Your task to perform on an android device: remove spam from my inbox in the gmail app Image 0: 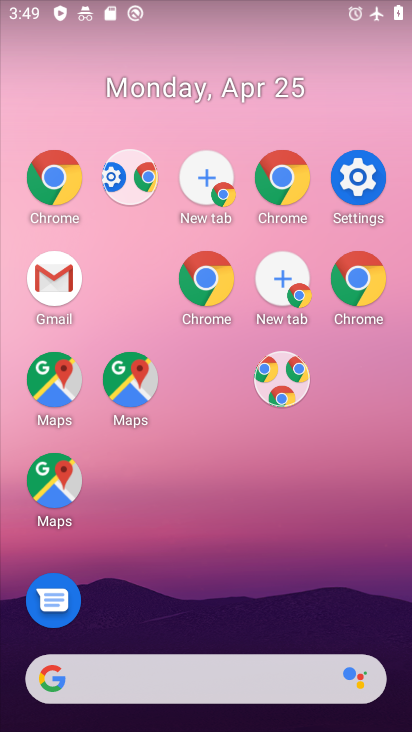
Step 0: drag from (293, 652) to (262, 60)
Your task to perform on an android device: remove spam from my inbox in the gmail app Image 1: 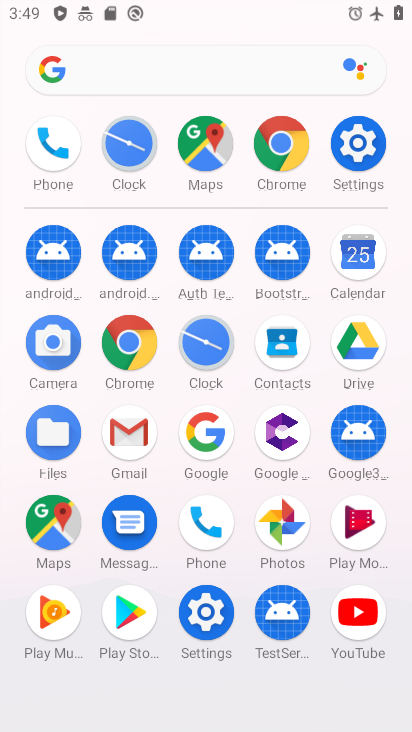
Step 1: click (130, 422)
Your task to perform on an android device: remove spam from my inbox in the gmail app Image 2: 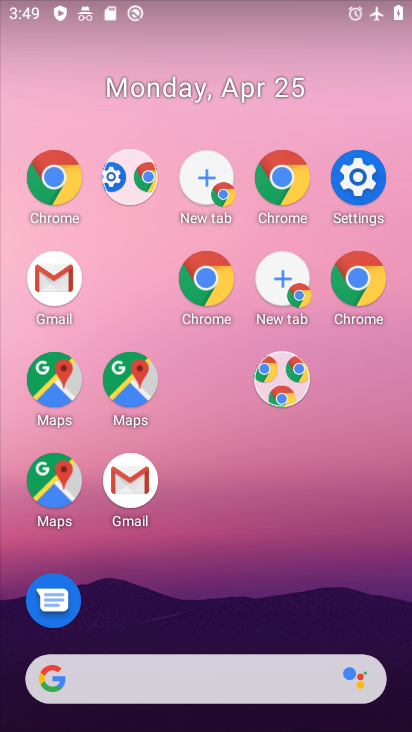
Step 2: click (125, 486)
Your task to perform on an android device: remove spam from my inbox in the gmail app Image 3: 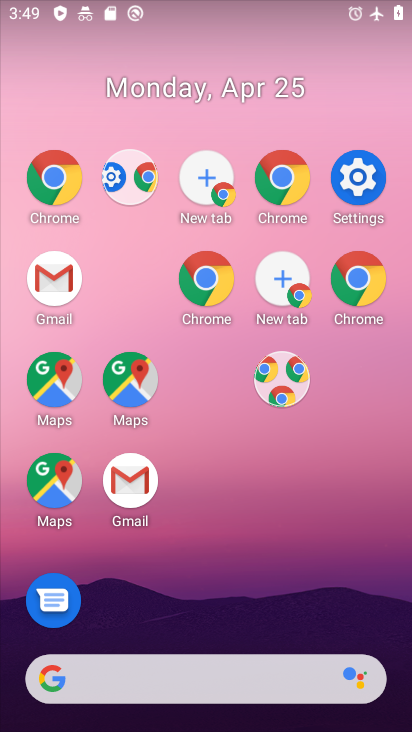
Step 3: drag from (261, 714) to (174, 180)
Your task to perform on an android device: remove spam from my inbox in the gmail app Image 4: 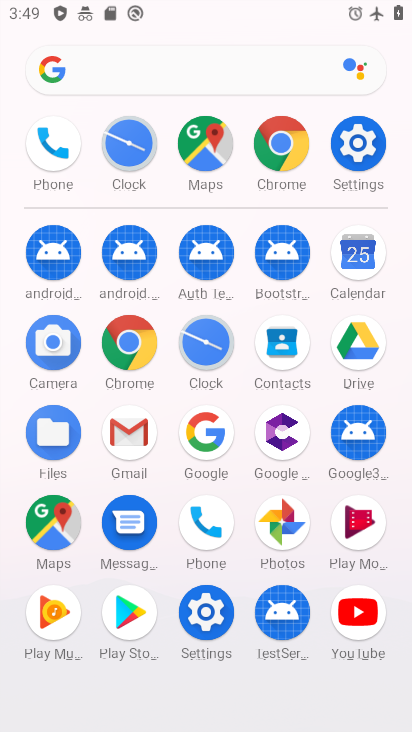
Step 4: click (127, 423)
Your task to perform on an android device: remove spam from my inbox in the gmail app Image 5: 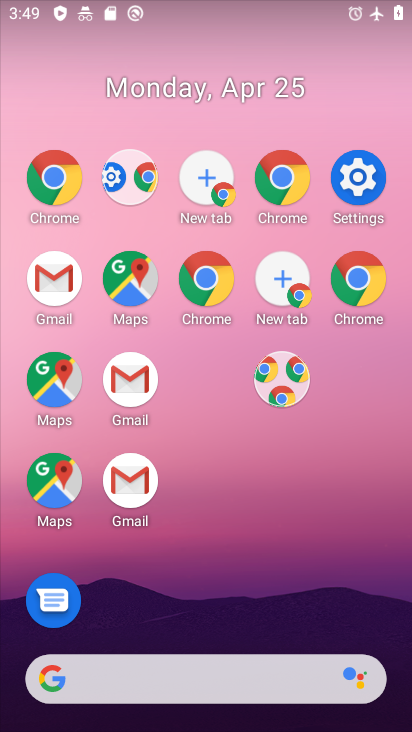
Step 5: drag from (278, 696) to (147, 92)
Your task to perform on an android device: remove spam from my inbox in the gmail app Image 6: 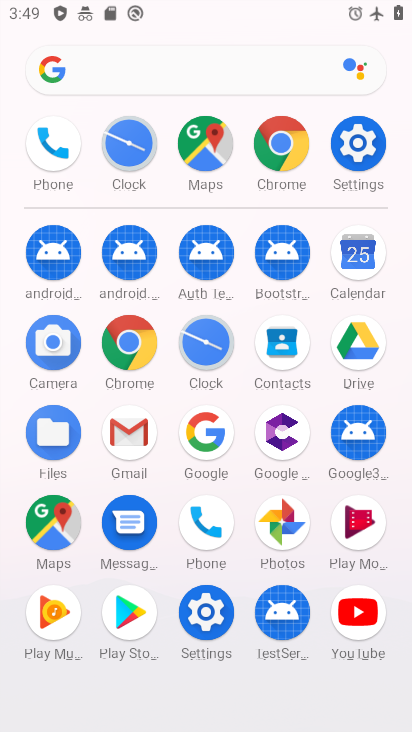
Step 6: click (121, 429)
Your task to perform on an android device: remove spam from my inbox in the gmail app Image 7: 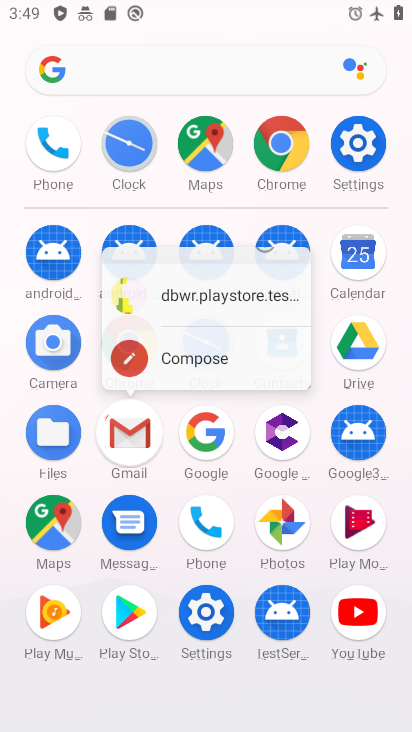
Step 7: click (130, 441)
Your task to perform on an android device: remove spam from my inbox in the gmail app Image 8: 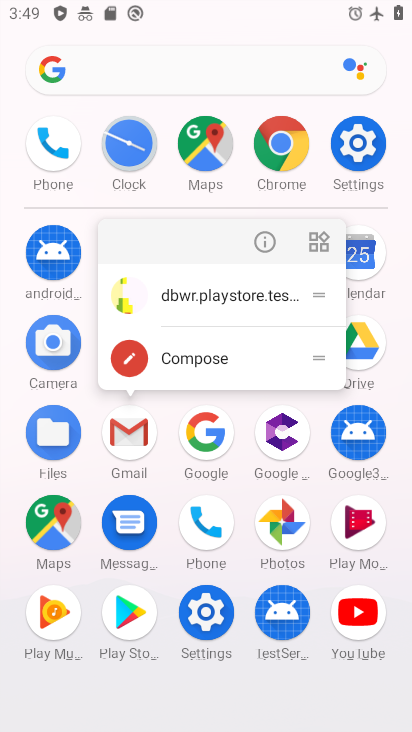
Step 8: click (130, 441)
Your task to perform on an android device: remove spam from my inbox in the gmail app Image 9: 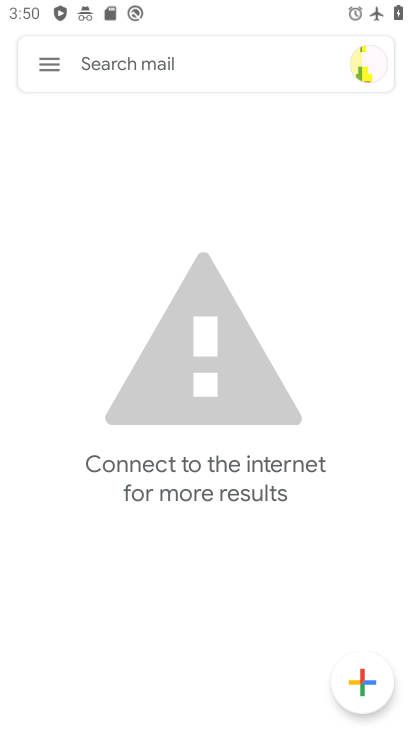
Step 9: click (42, 67)
Your task to perform on an android device: remove spam from my inbox in the gmail app Image 10: 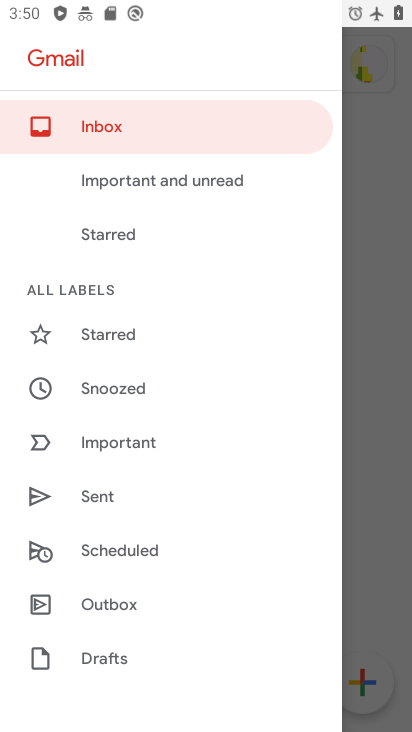
Step 10: drag from (101, 501) to (135, 82)
Your task to perform on an android device: remove spam from my inbox in the gmail app Image 11: 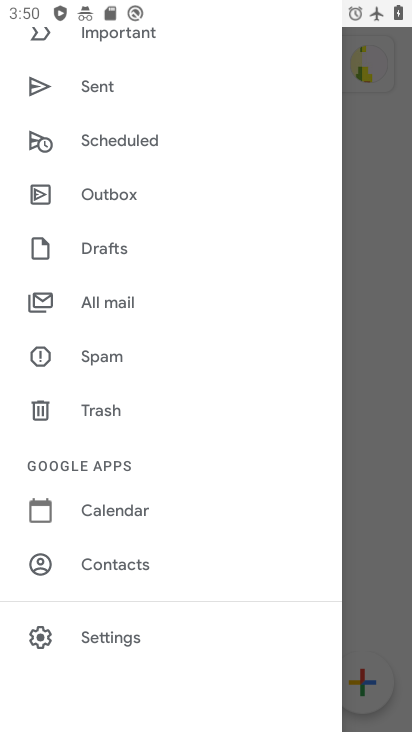
Step 11: click (117, 636)
Your task to perform on an android device: remove spam from my inbox in the gmail app Image 12: 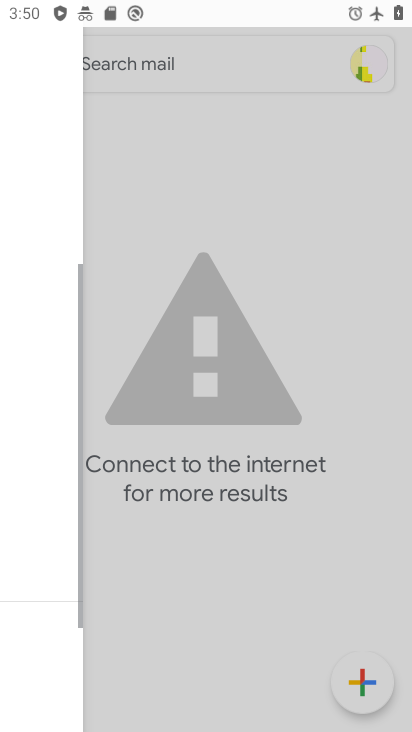
Step 12: click (116, 636)
Your task to perform on an android device: remove spam from my inbox in the gmail app Image 13: 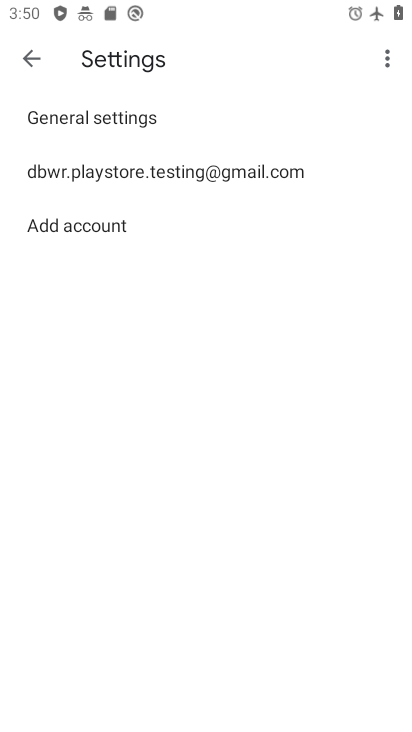
Step 13: click (129, 164)
Your task to perform on an android device: remove spam from my inbox in the gmail app Image 14: 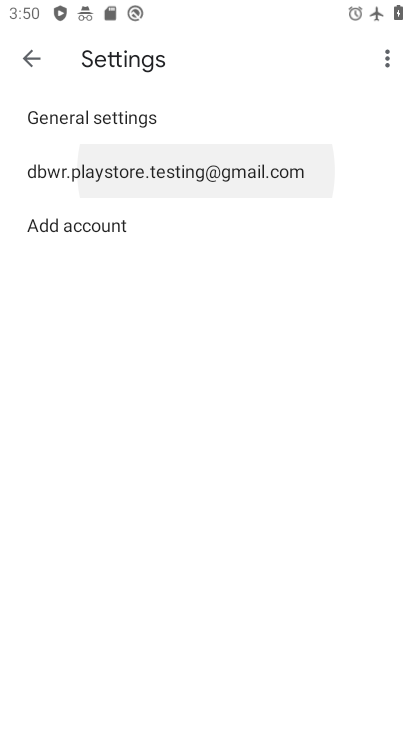
Step 14: click (136, 170)
Your task to perform on an android device: remove spam from my inbox in the gmail app Image 15: 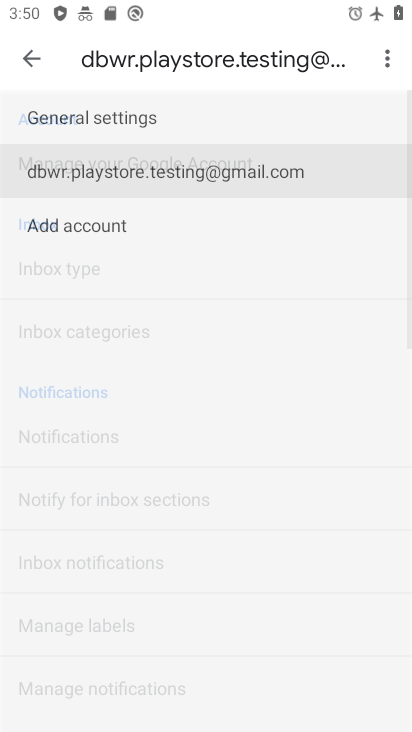
Step 15: click (145, 173)
Your task to perform on an android device: remove spam from my inbox in the gmail app Image 16: 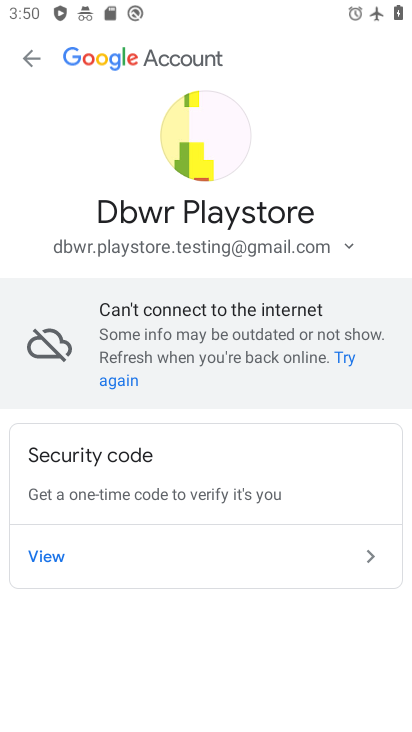
Step 16: click (24, 49)
Your task to perform on an android device: remove spam from my inbox in the gmail app Image 17: 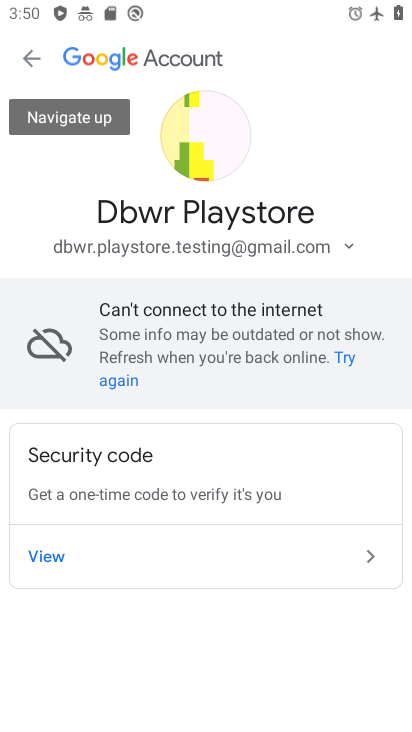
Step 17: click (17, 63)
Your task to perform on an android device: remove spam from my inbox in the gmail app Image 18: 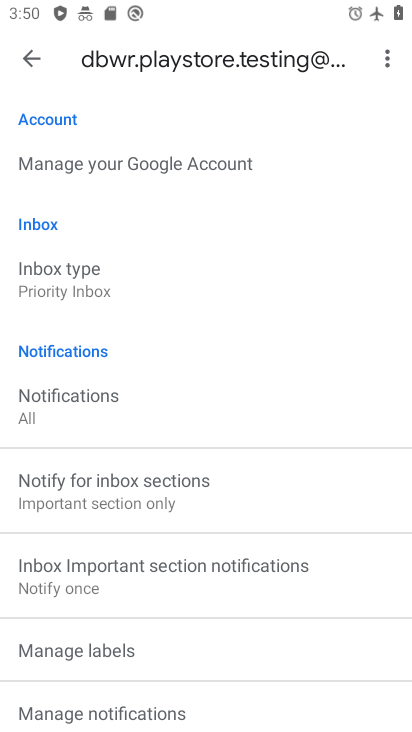
Step 18: task complete